Your task to perform on an android device: Go to wifi settings Image 0: 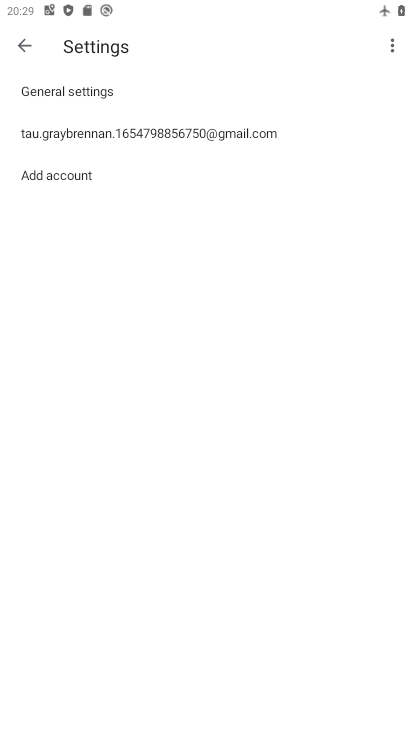
Step 0: press home button
Your task to perform on an android device: Go to wifi settings Image 1: 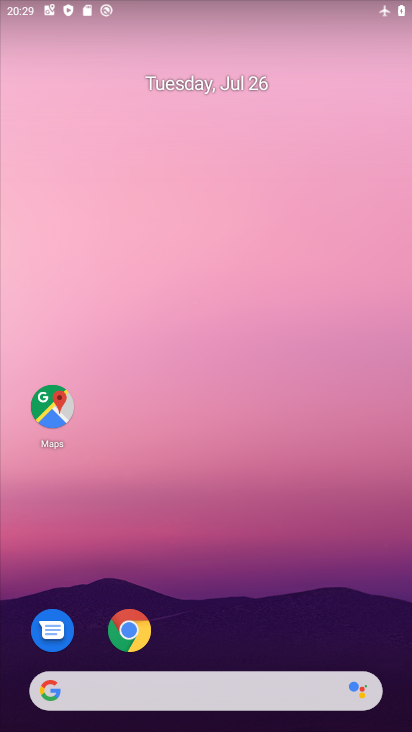
Step 1: drag from (274, 648) to (248, 157)
Your task to perform on an android device: Go to wifi settings Image 2: 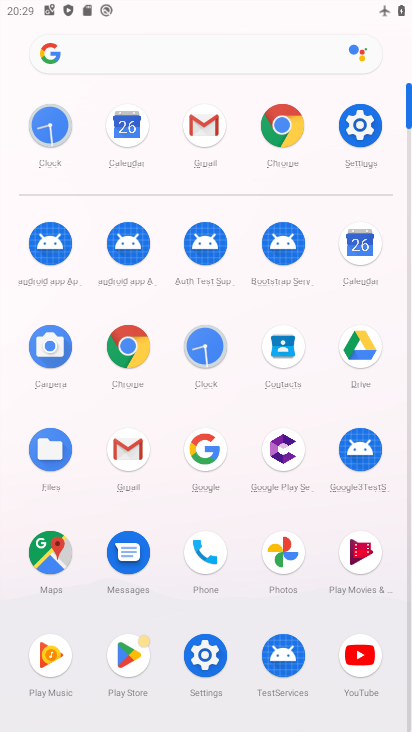
Step 2: click (346, 122)
Your task to perform on an android device: Go to wifi settings Image 3: 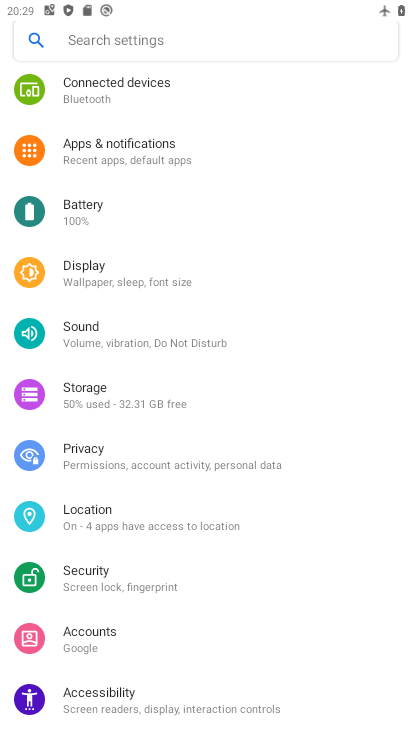
Step 3: drag from (234, 185) to (372, 677)
Your task to perform on an android device: Go to wifi settings Image 4: 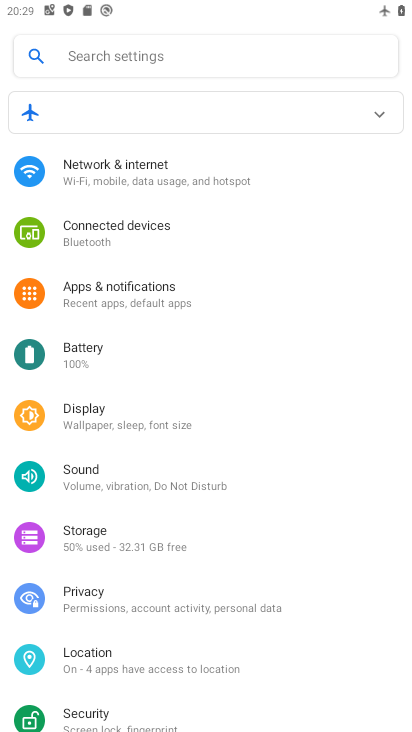
Step 4: click (184, 188)
Your task to perform on an android device: Go to wifi settings Image 5: 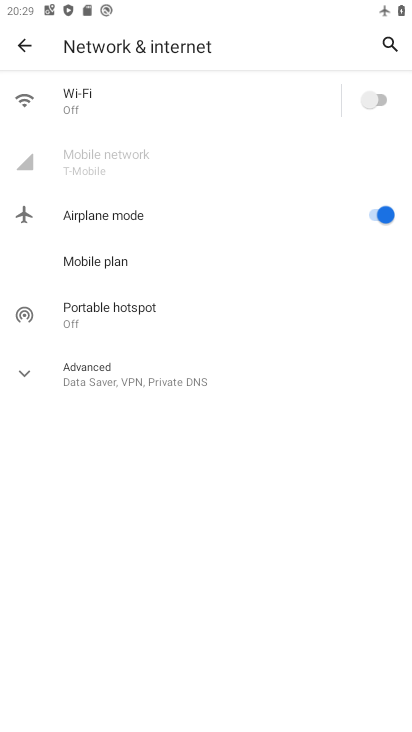
Step 5: click (101, 119)
Your task to perform on an android device: Go to wifi settings Image 6: 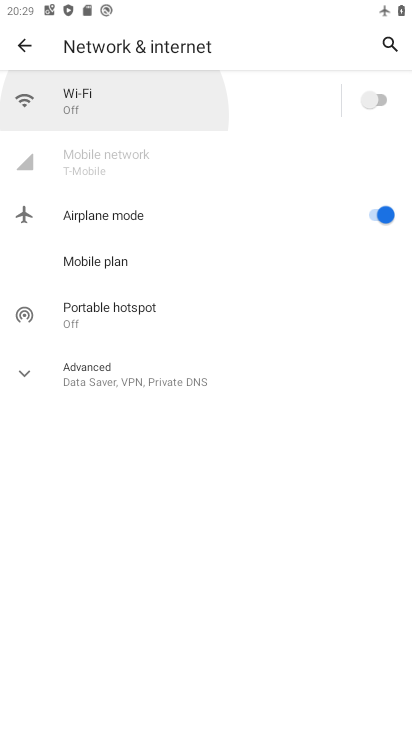
Step 6: click (101, 119)
Your task to perform on an android device: Go to wifi settings Image 7: 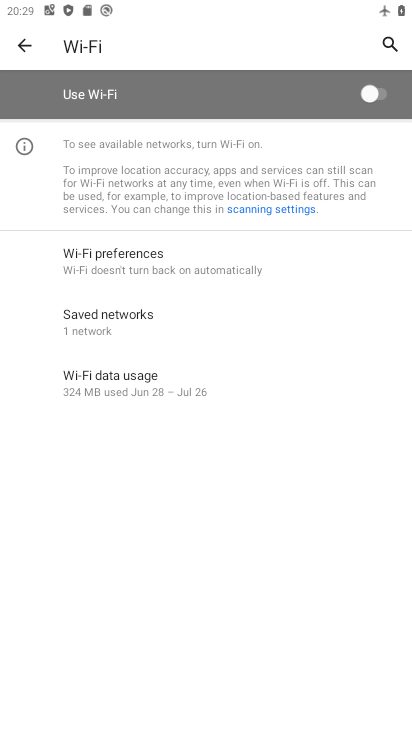
Step 7: task complete